Your task to perform on an android device: turn notification dots on Image 0: 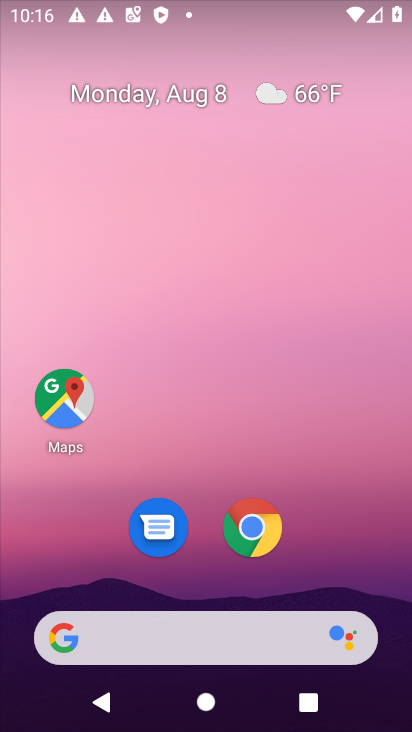
Step 0: drag from (402, 707) to (309, 82)
Your task to perform on an android device: turn notification dots on Image 1: 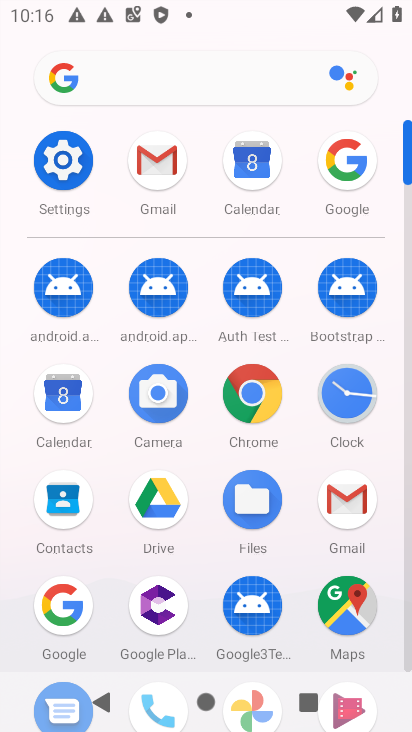
Step 1: click (62, 145)
Your task to perform on an android device: turn notification dots on Image 2: 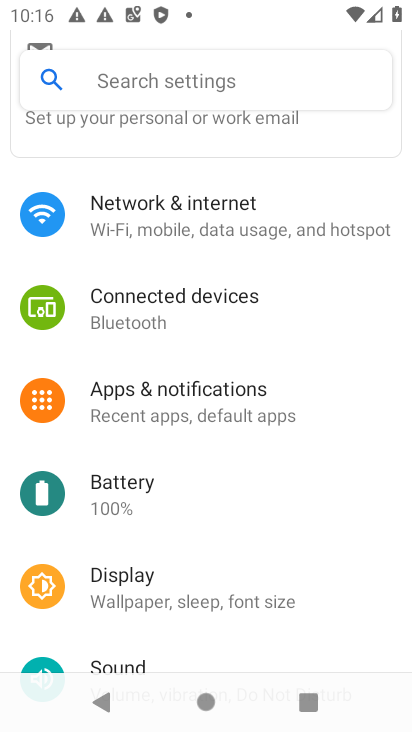
Step 2: click (182, 388)
Your task to perform on an android device: turn notification dots on Image 3: 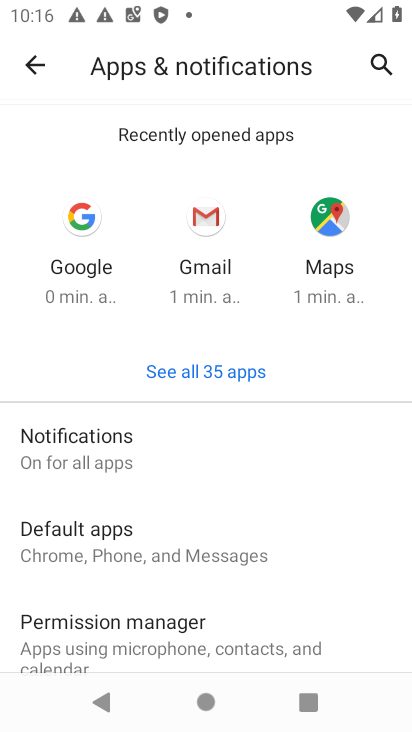
Step 3: click (68, 452)
Your task to perform on an android device: turn notification dots on Image 4: 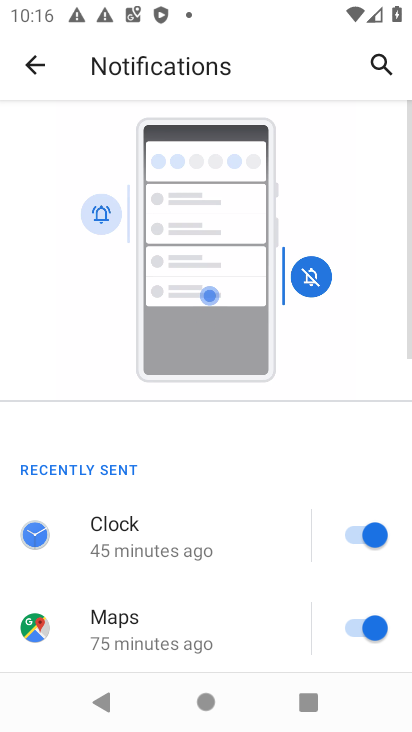
Step 4: drag from (273, 653) to (268, 242)
Your task to perform on an android device: turn notification dots on Image 5: 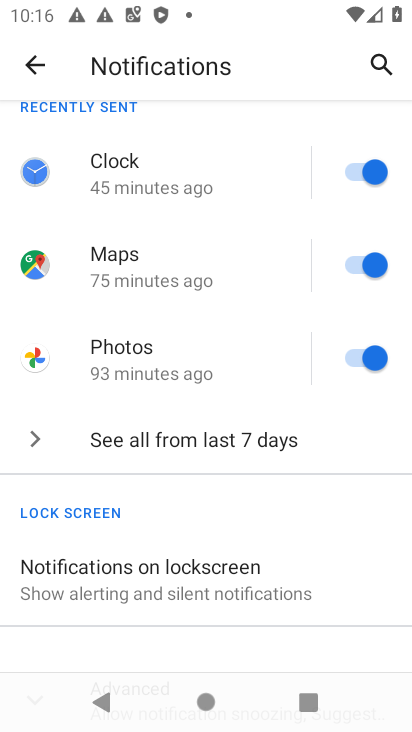
Step 5: drag from (273, 633) to (271, 178)
Your task to perform on an android device: turn notification dots on Image 6: 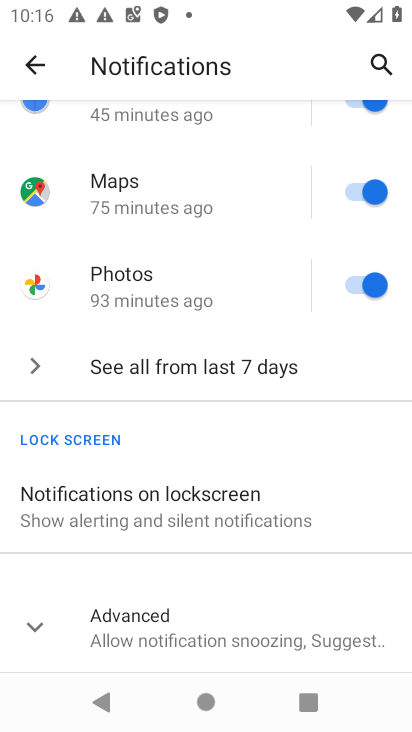
Step 6: click (32, 627)
Your task to perform on an android device: turn notification dots on Image 7: 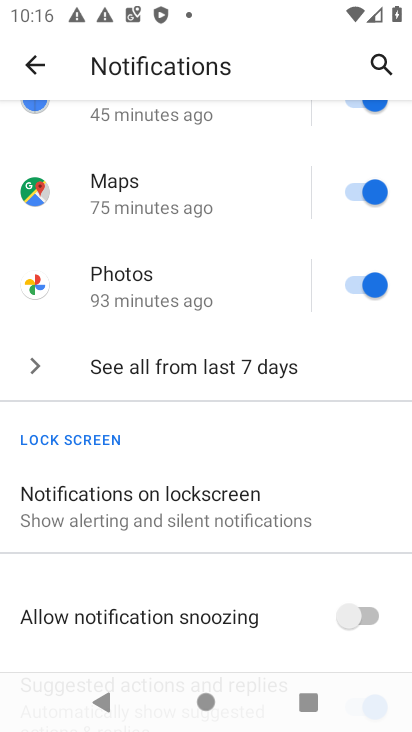
Step 7: task complete